Your task to perform on an android device: turn on translation in the chrome app Image 0: 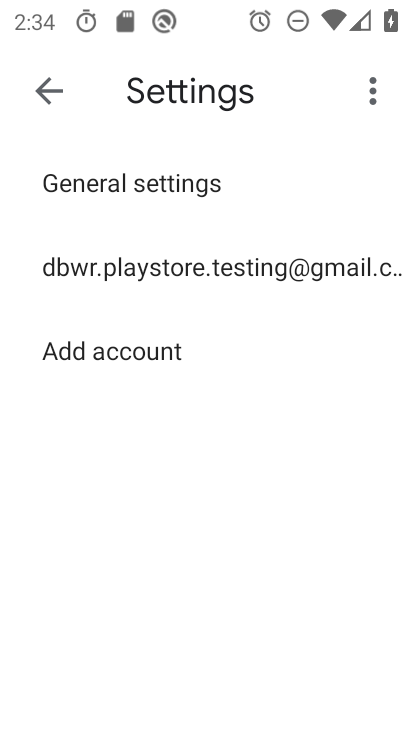
Step 0: press home button
Your task to perform on an android device: turn on translation in the chrome app Image 1: 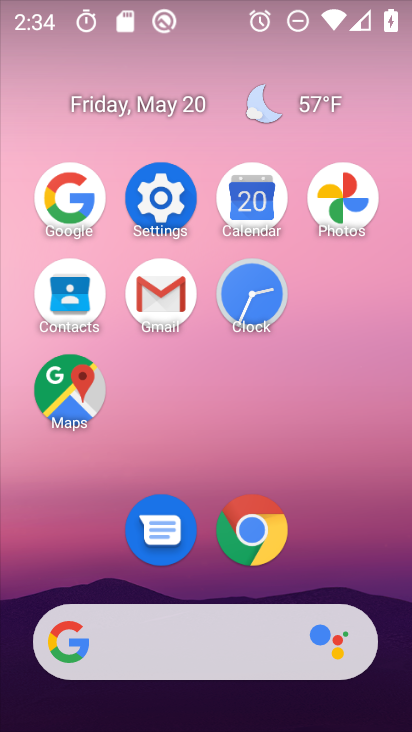
Step 1: click (251, 520)
Your task to perform on an android device: turn on translation in the chrome app Image 2: 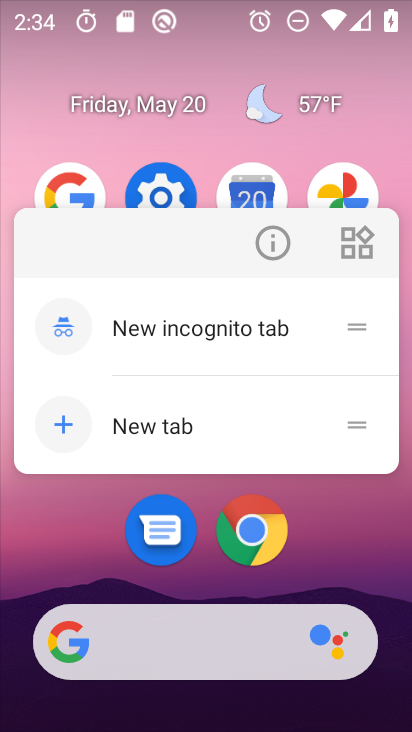
Step 2: click (251, 520)
Your task to perform on an android device: turn on translation in the chrome app Image 3: 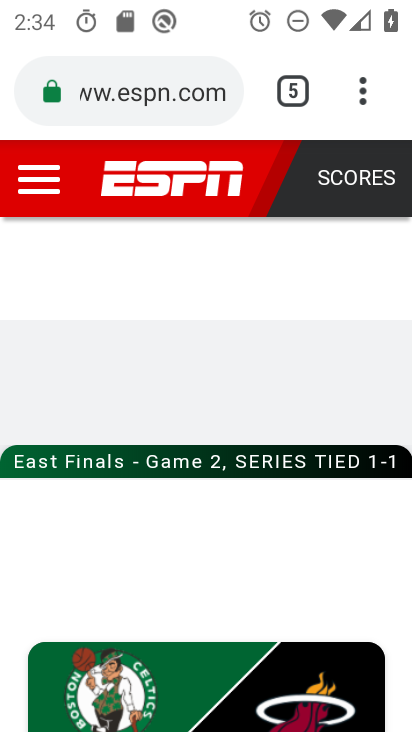
Step 3: click (378, 90)
Your task to perform on an android device: turn on translation in the chrome app Image 4: 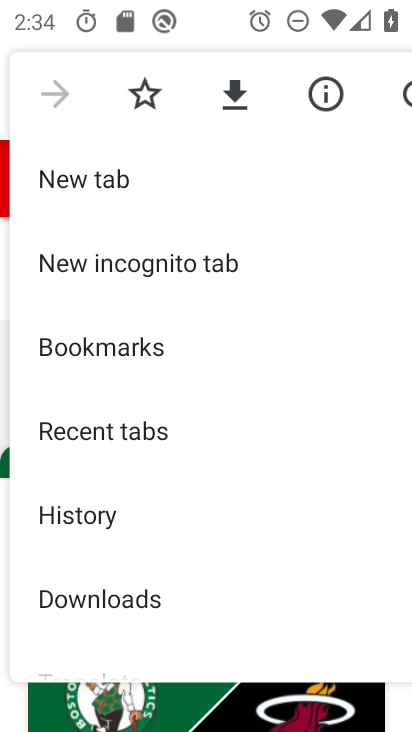
Step 4: drag from (243, 491) to (231, 174)
Your task to perform on an android device: turn on translation in the chrome app Image 5: 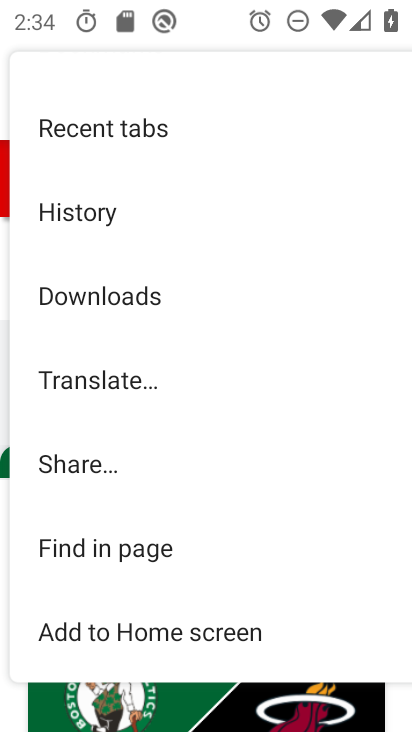
Step 5: drag from (221, 416) to (234, 131)
Your task to perform on an android device: turn on translation in the chrome app Image 6: 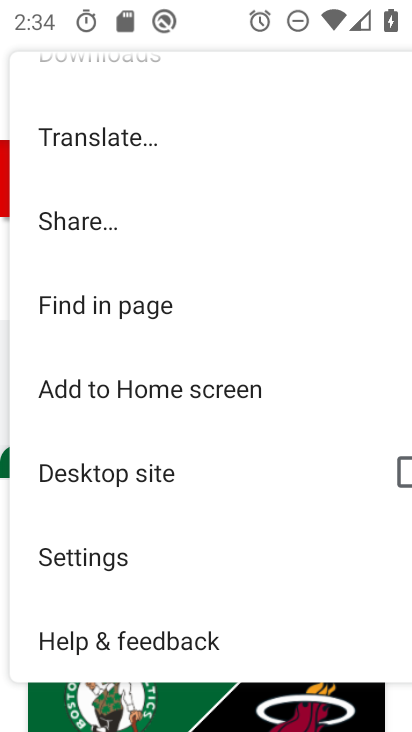
Step 6: click (156, 554)
Your task to perform on an android device: turn on translation in the chrome app Image 7: 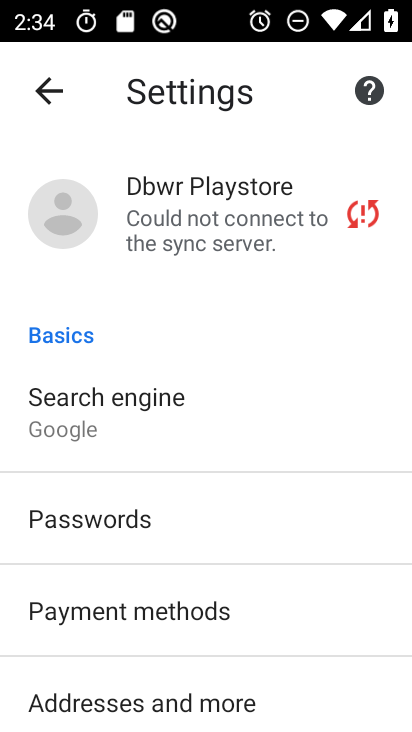
Step 7: drag from (252, 617) to (289, 205)
Your task to perform on an android device: turn on translation in the chrome app Image 8: 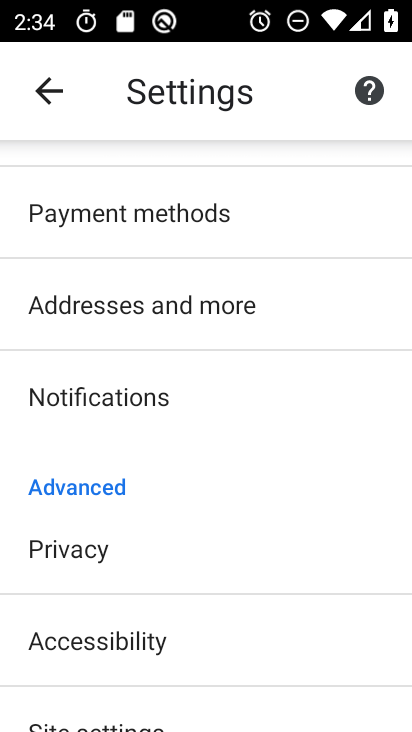
Step 8: drag from (187, 585) to (271, 179)
Your task to perform on an android device: turn on translation in the chrome app Image 9: 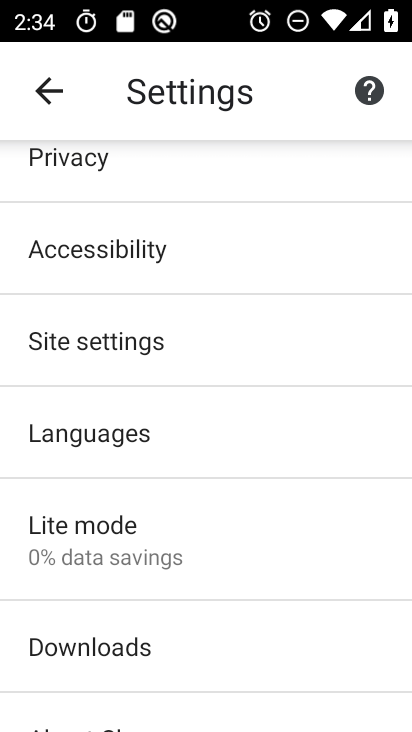
Step 9: click (244, 444)
Your task to perform on an android device: turn on translation in the chrome app Image 10: 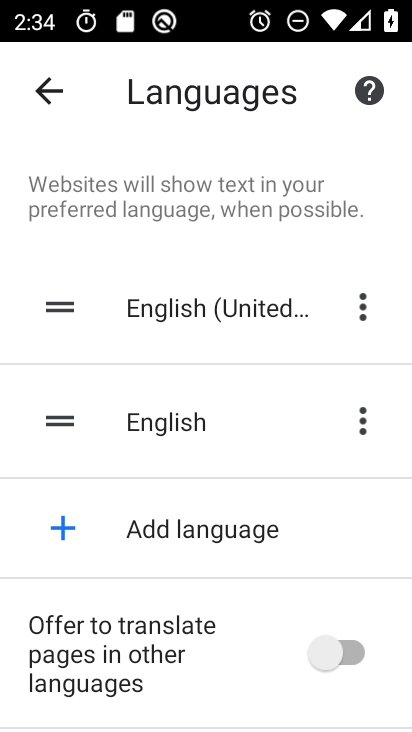
Step 10: click (320, 648)
Your task to perform on an android device: turn on translation in the chrome app Image 11: 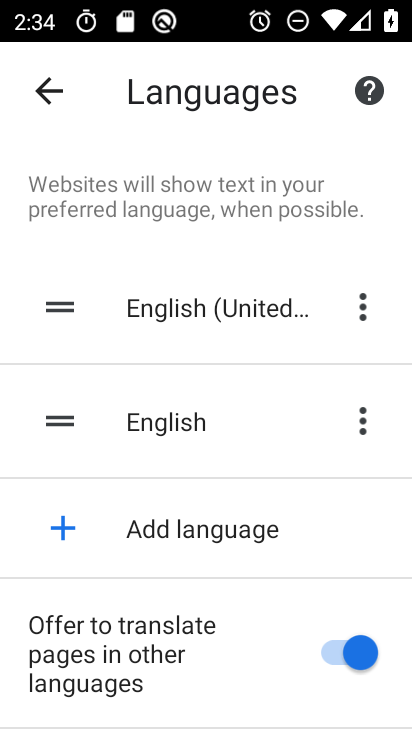
Step 11: task complete